Your task to perform on an android device: Set an alarmfor 5pm Image 0: 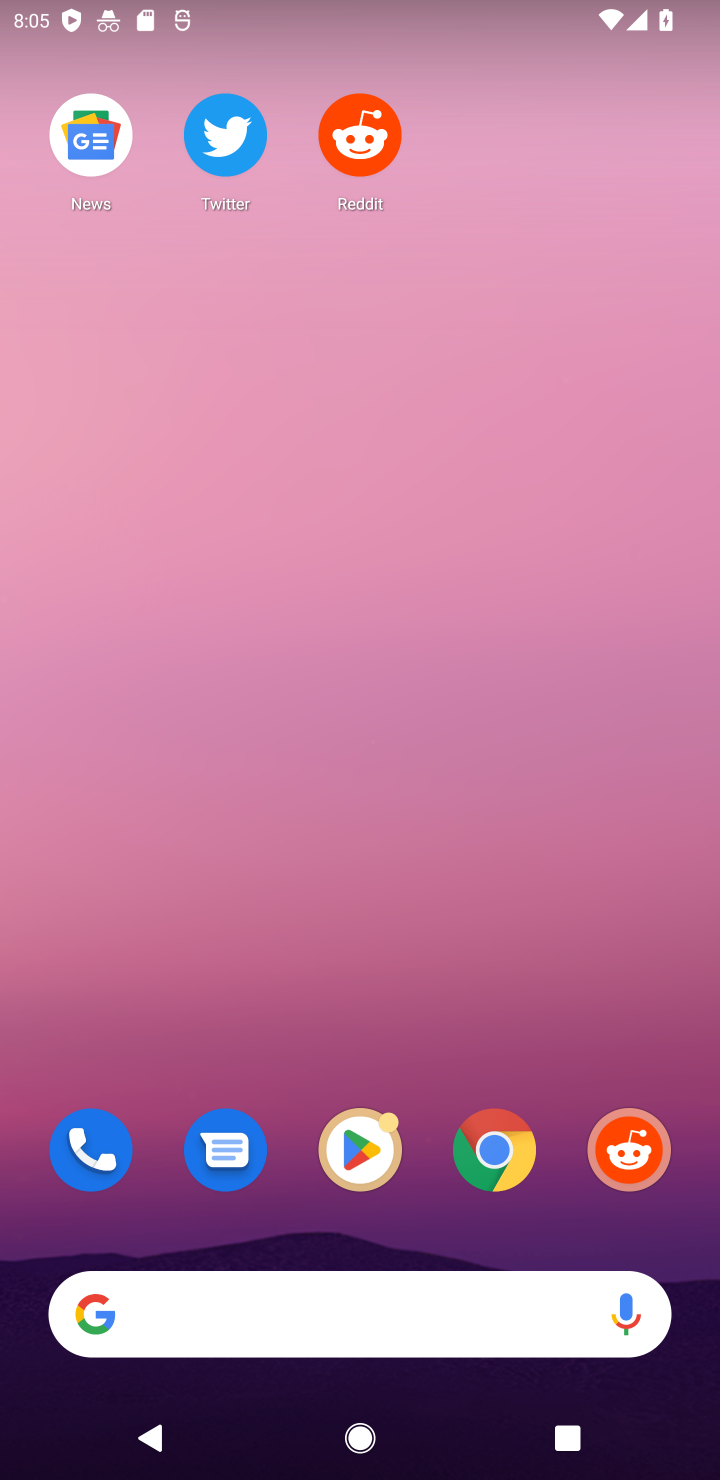
Step 0: drag from (422, 1014) to (373, 96)
Your task to perform on an android device: Set an alarmfor 5pm Image 1: 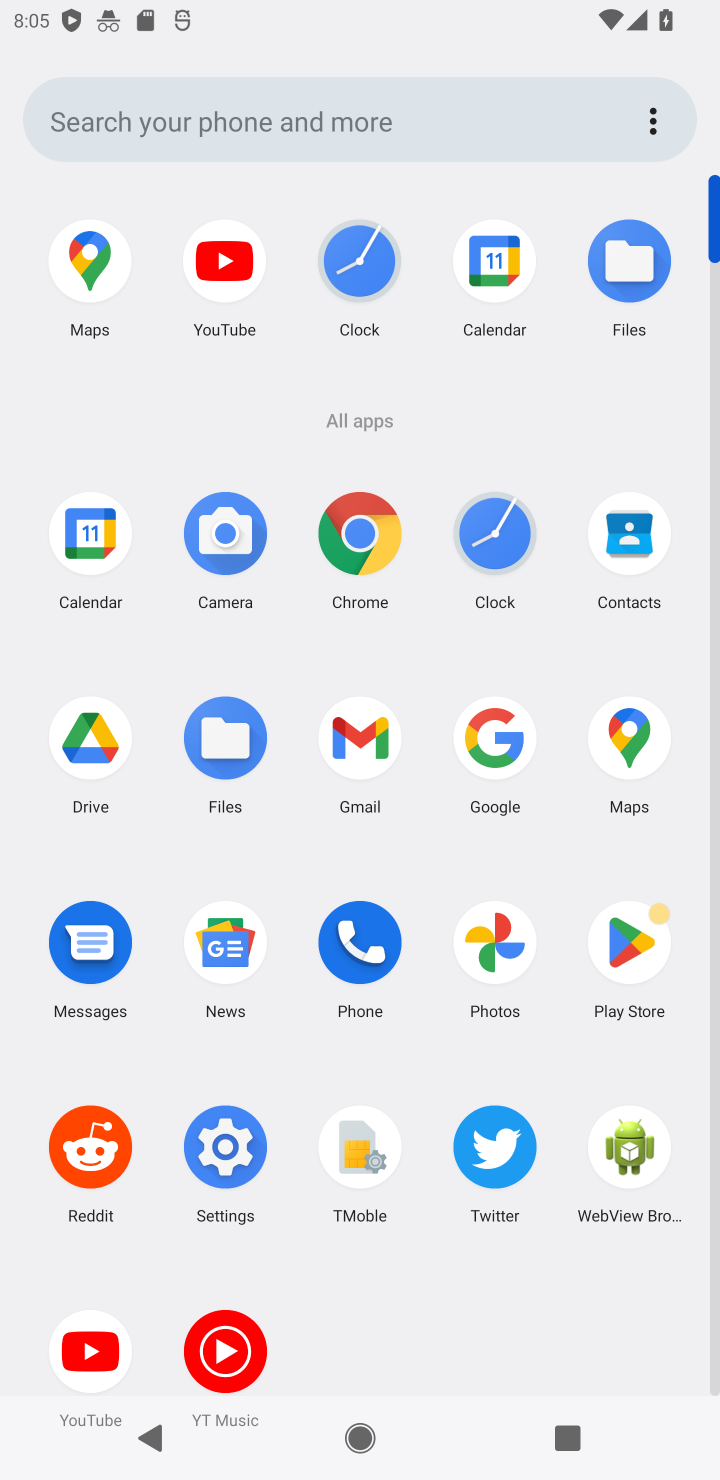
Step 1: click (372, 282)
Your task to perform on an android device: Set an alarmfor 5pm Image 2: 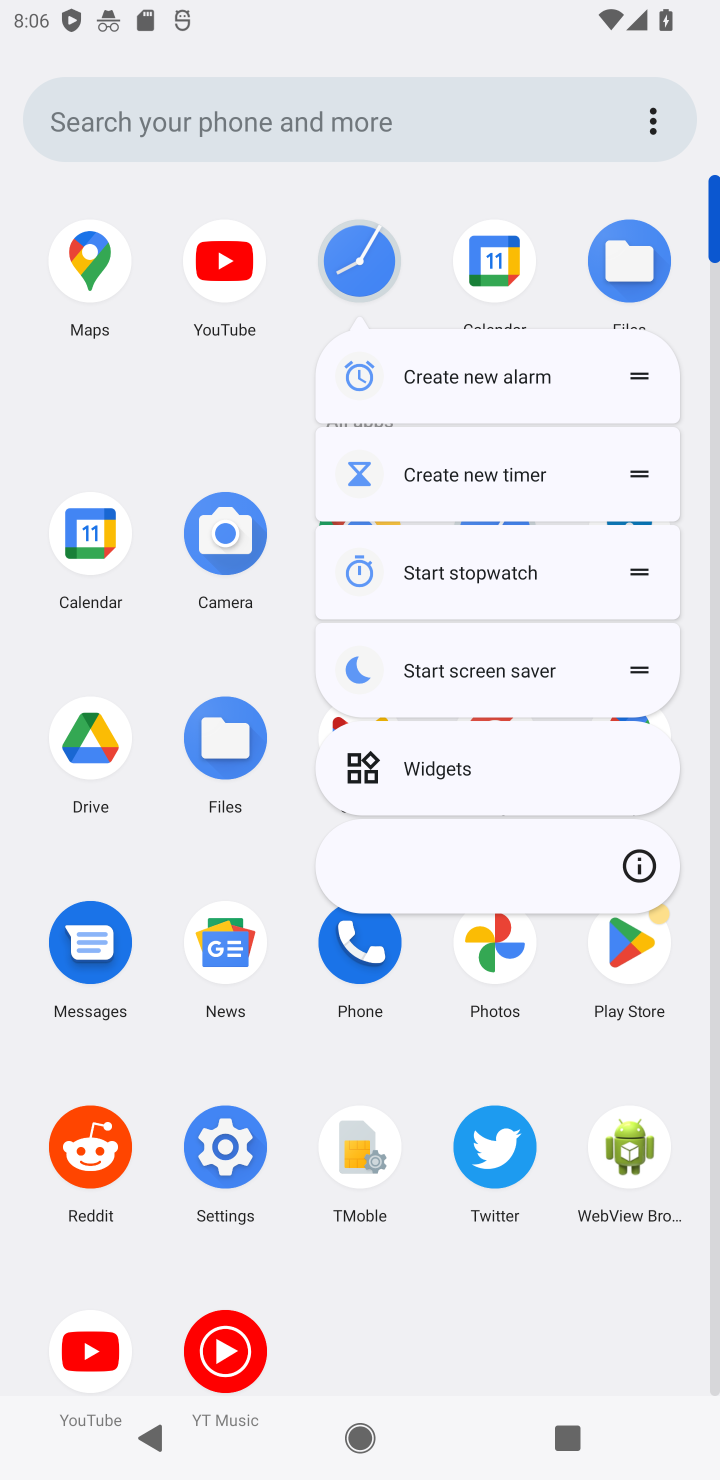
Step 2: click (361, 270)
Your task to perform on an android device: Set an alarmfor 5pm Image 3: 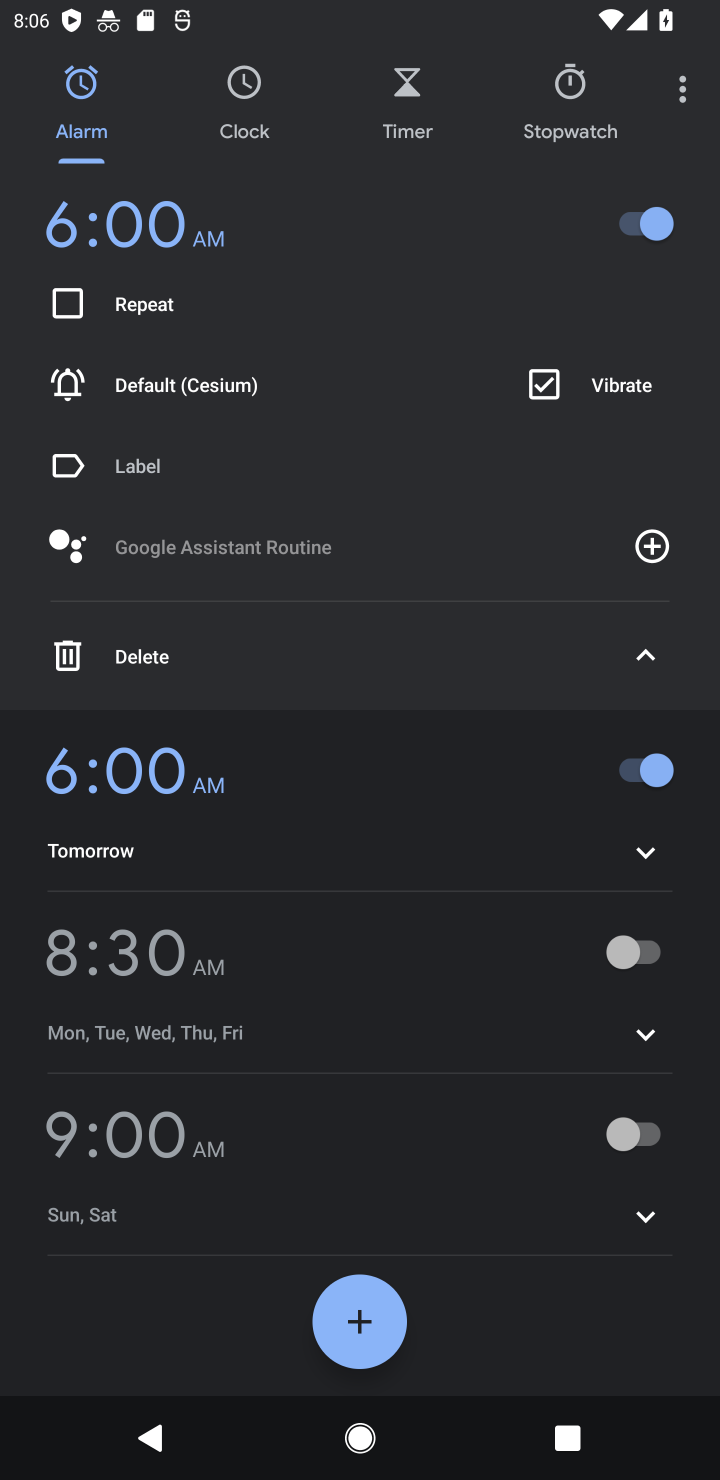
Step 3: click (341, 1316)
Your task to perform on an android device: Set an alarmfor 5pm Image 4: 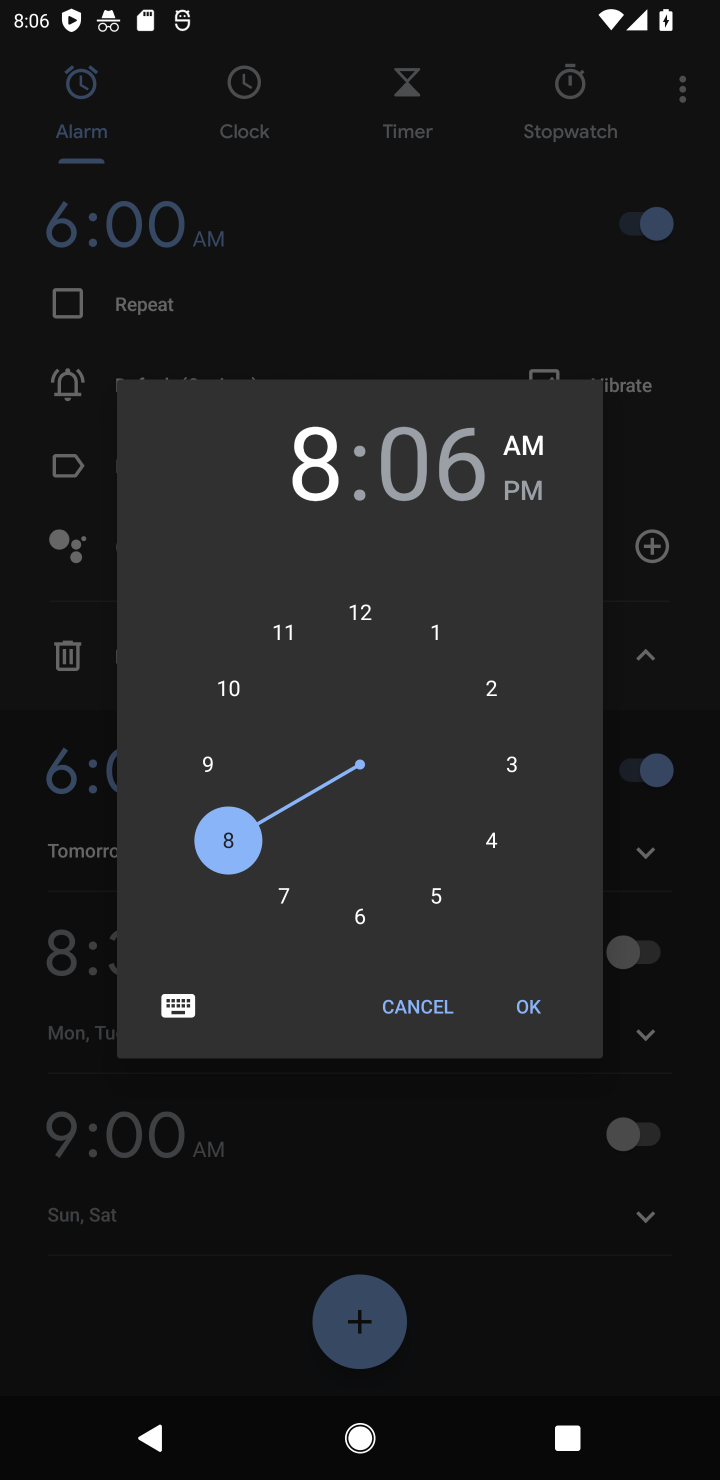
Step 4: click (429, 892)
Your task to perform on an android device: Set an alarmfor 5pm Image 5: 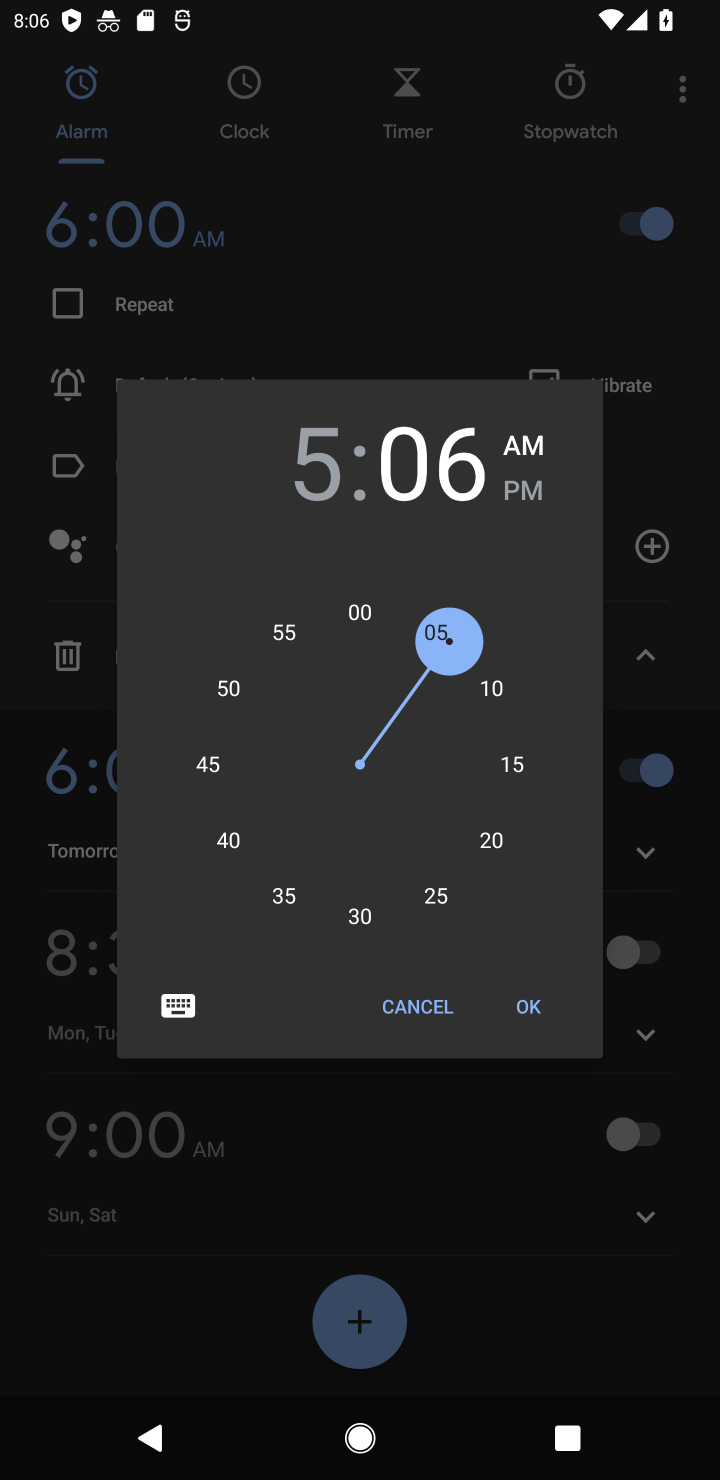
Step 5: click (356, 612)
Your task to perform on an android device: Set an alarmfor 5pm Image 6: 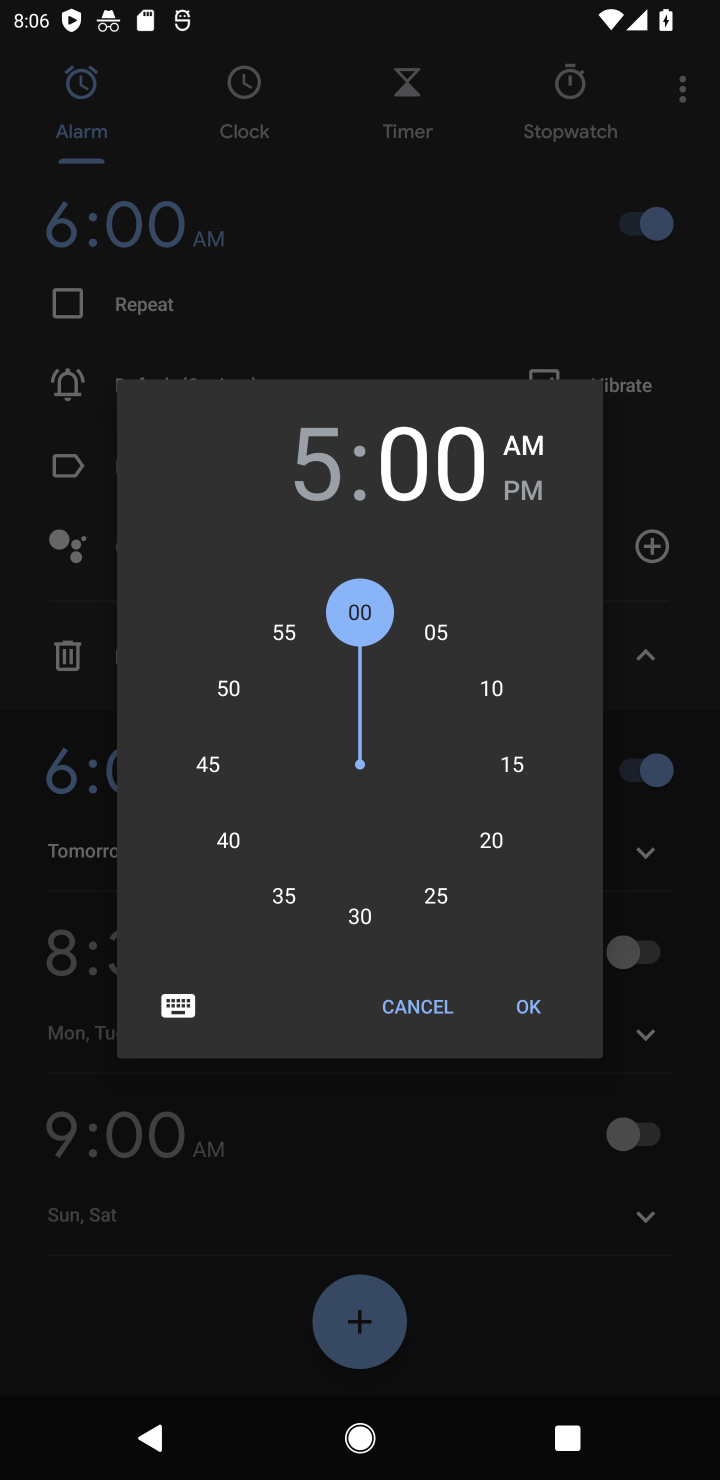
Step 6: click (519, 480)
Your task to perform on an android device: Set an alarmfor 5pm Image 7: 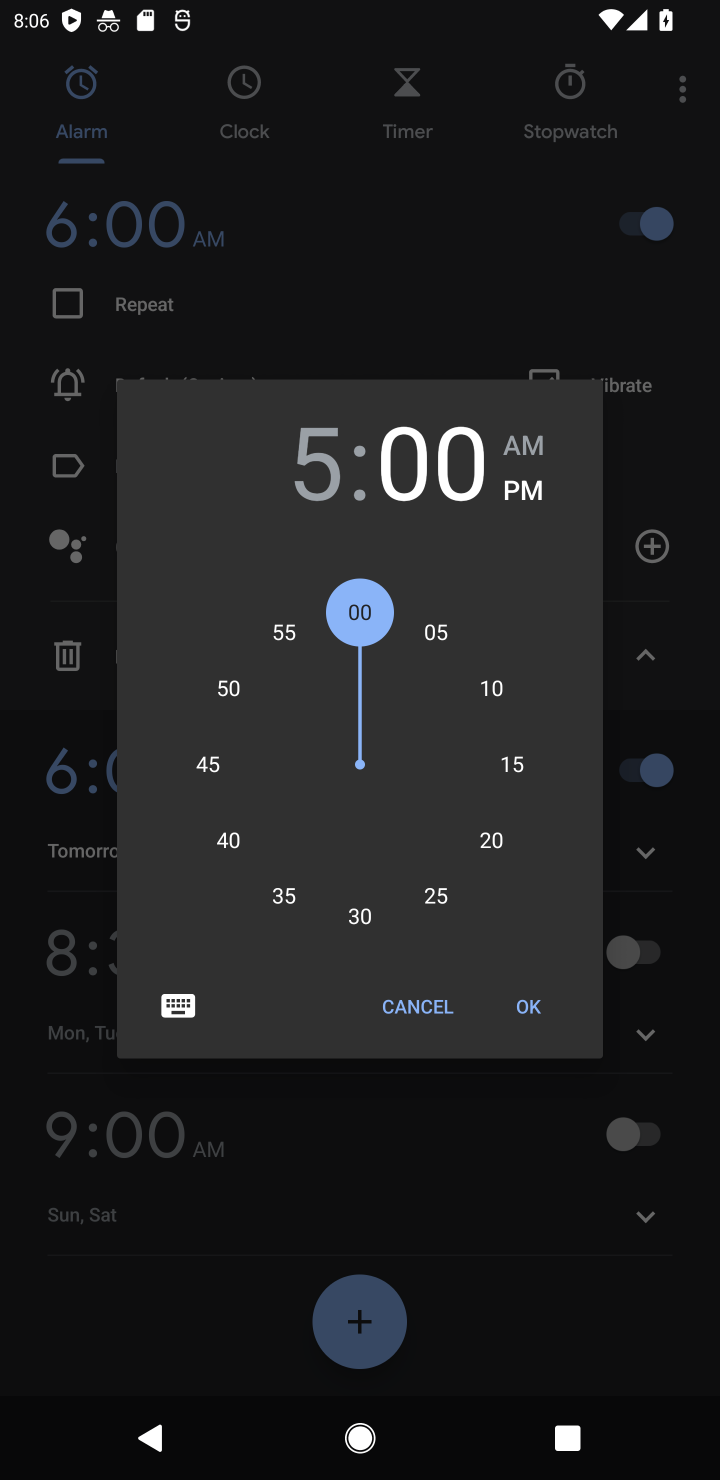
Step 7: click (543, 1024)
Your task to perform on an android device: Set an alarmfor 5pm Image 8: 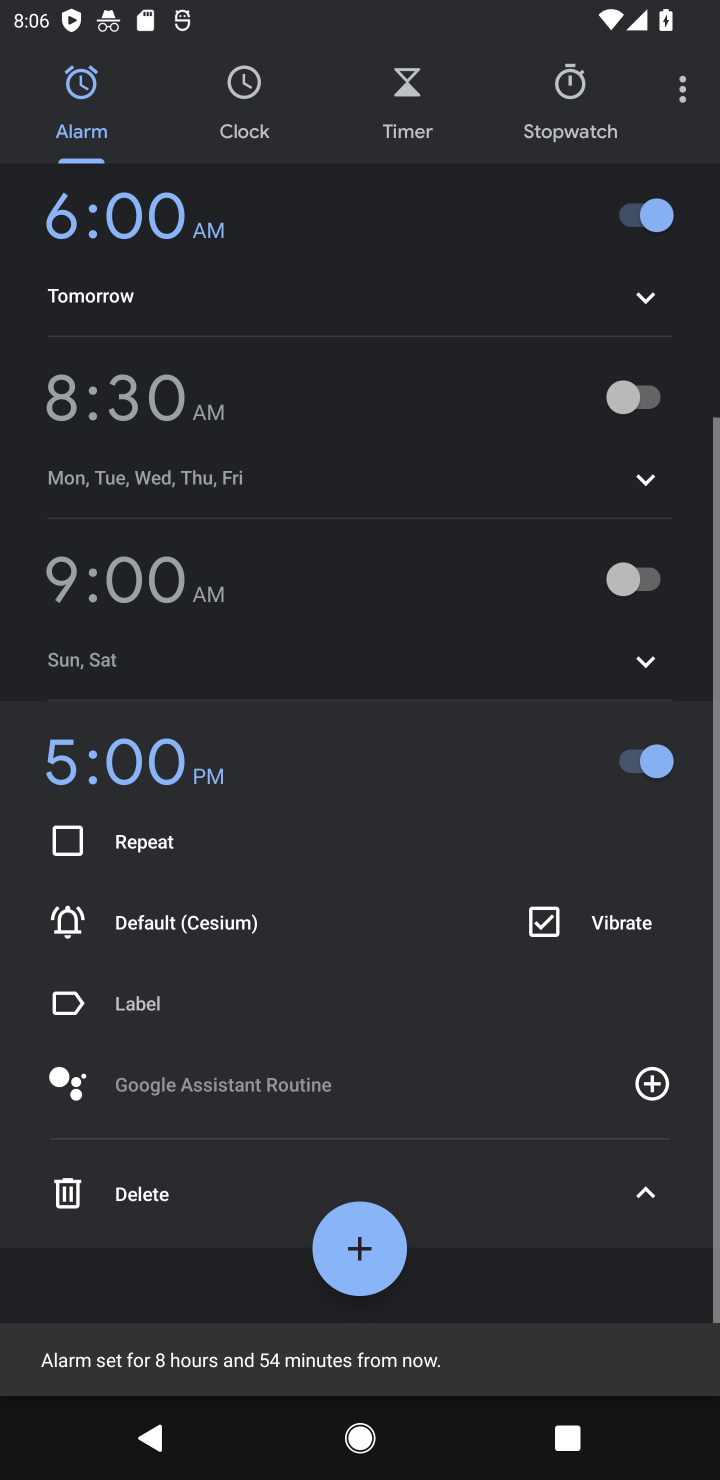
Step 8: task complete